Your task to perform on an android device: move an email to a new category in the gmail app Image 0: 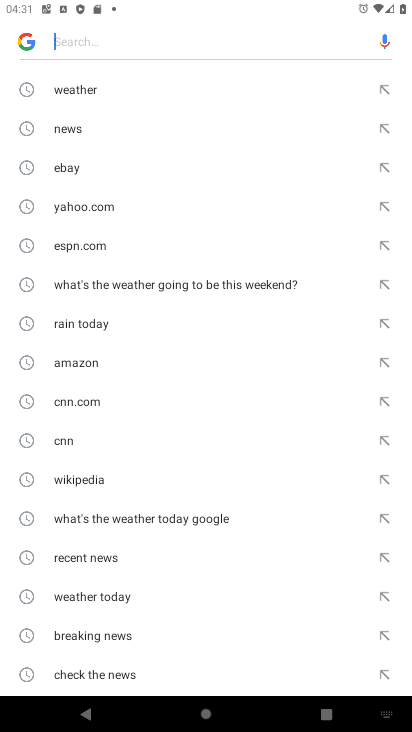
Step 0: press home button
Your task to perform on an android device: move an email to a new category in the gmail app Image 1: 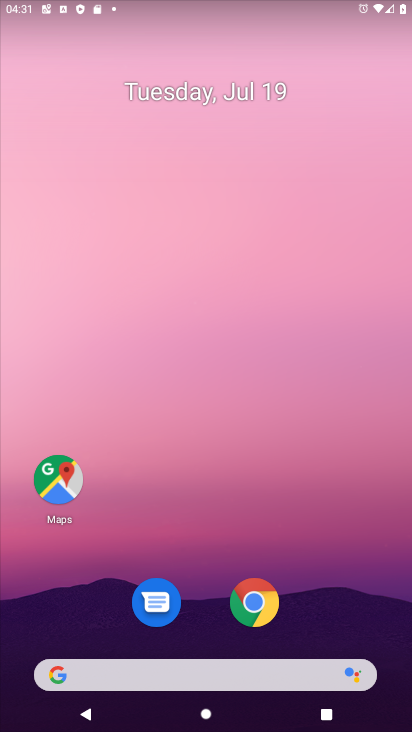
Step 1: drag from (210, 608) to (194, 234)
Your task to perform on an android device: move an email to a new category in the gmail app Image 2: 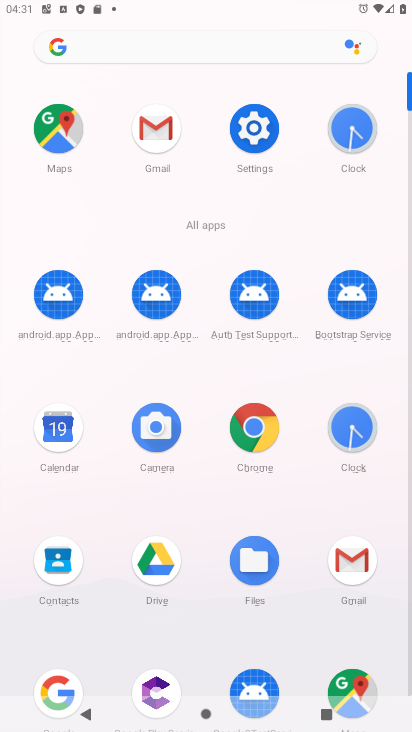
Step 2: click (157, 113)
Your task to perform on an android device: move an email to a new category in the gmail app Image 3: 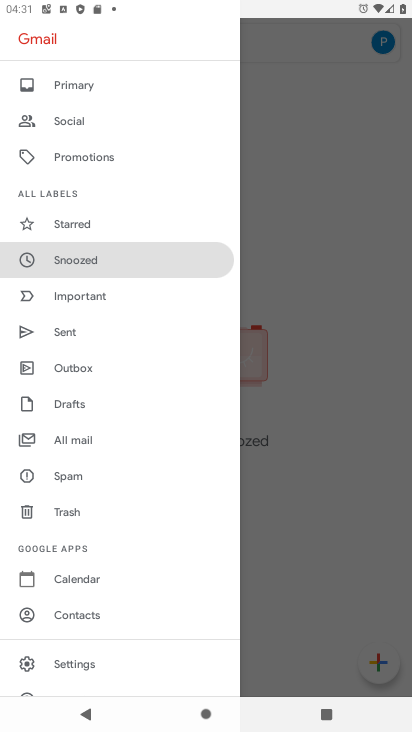
Step 3: click (326, 283)
Your task to perform on an android device: move an email to a new category in the gmail app Image 4: 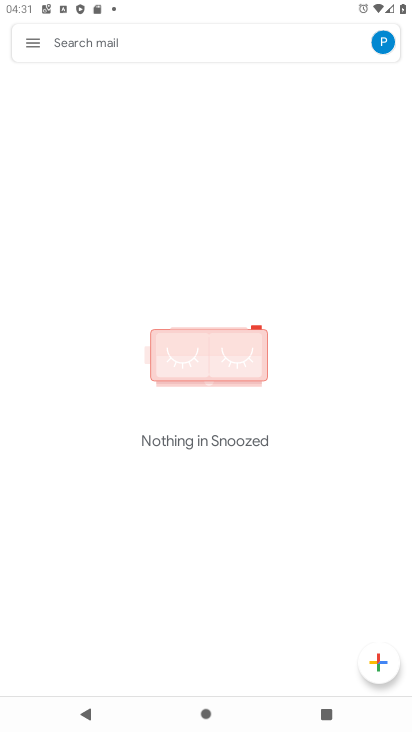
Step 4: task complete